Your task to perform on an android device: Go to display settings Image 0: 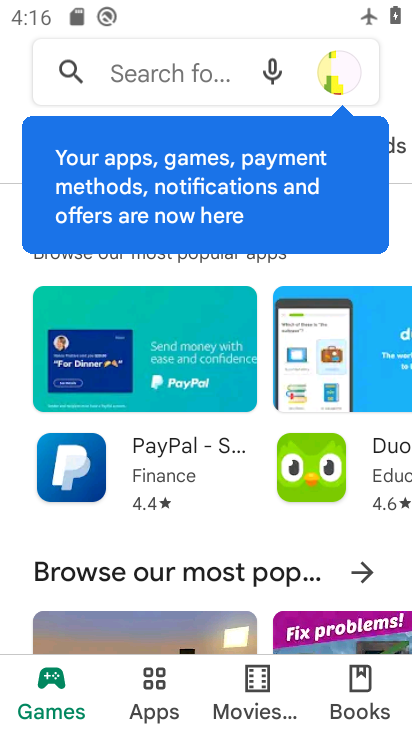
Step 0: press home button
Your task to perform on an android device: Go to display settings Image 1: 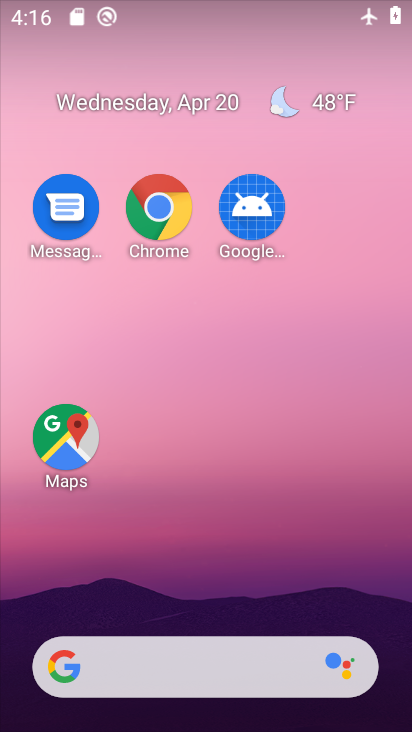
Step 1: drag from (194, 637) to (282, 106)
Your task to perform on an android device: Go to display settings Image 2: 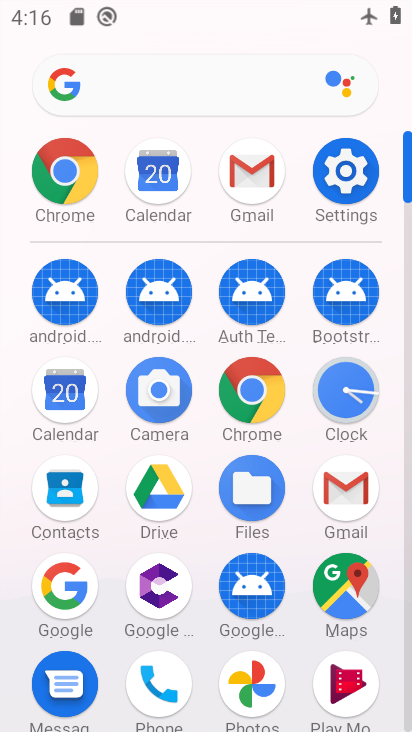
Step 2: click (350, 172)
Your task to perform on an android device: Go to display settings Image 3: 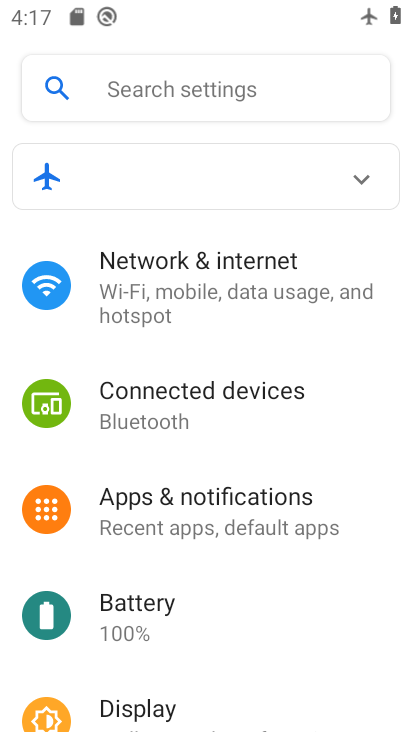
Step 3: drag from (207, 603) to (238, 239)
Your task to perform on an android device: Go to display settings Image 4: 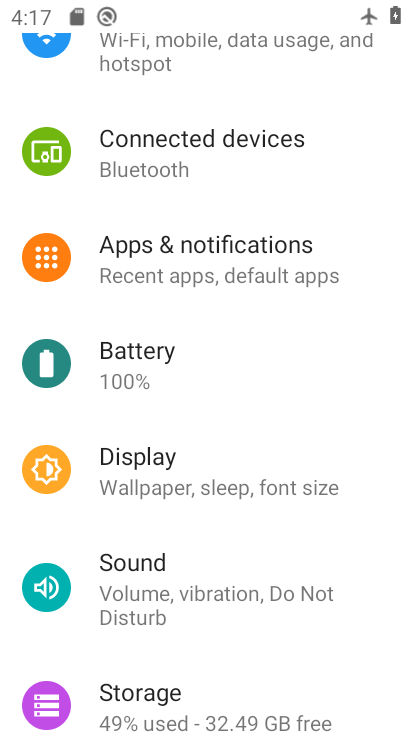
Step 4: click (179, 467)
Your task to perform on an android device: Go to display settings Image 5: 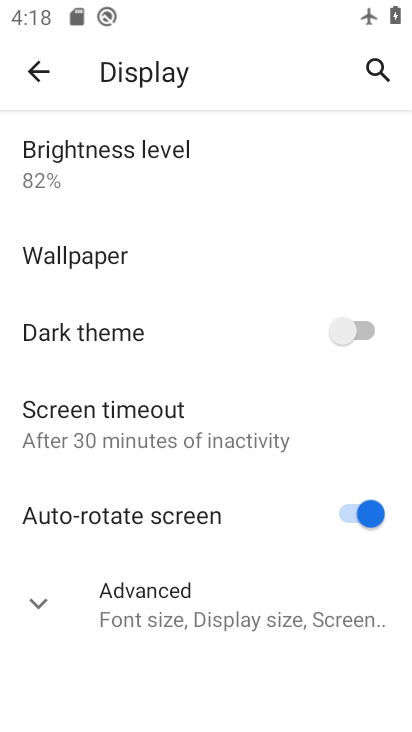
Step 5: task complete